Your task to perform on an android device: Open the web browser Image 0: 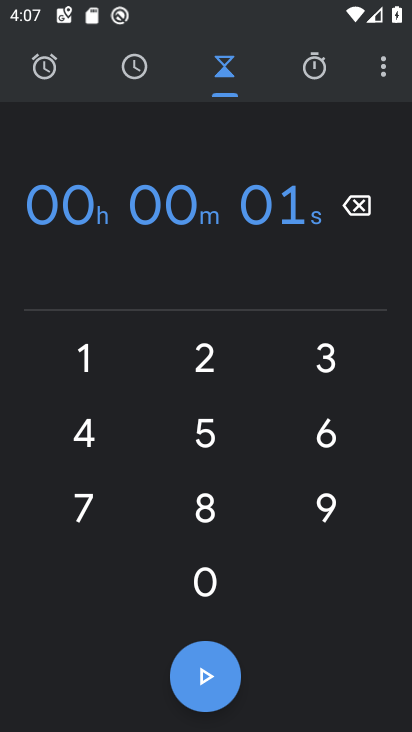
Step 0: press home button
Your task to perform on an android device: Open the web browser Image 1: 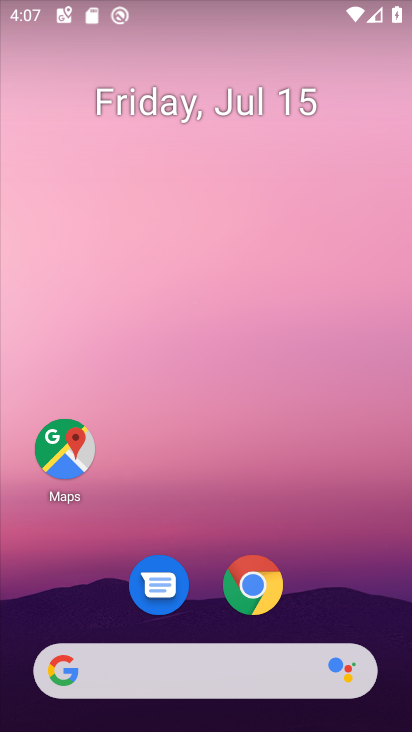
Step 1: click (249, 673)
Your task to perform on an android device: Open the web browser Image 2: 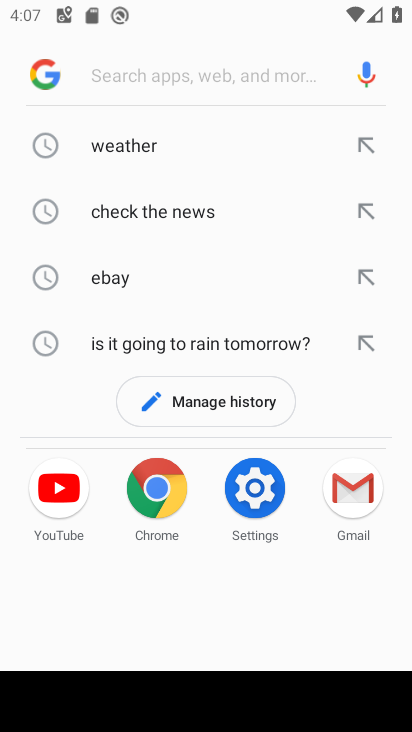
Step 2: task complete